Your task to perform on an android device: turn off location Image 0: 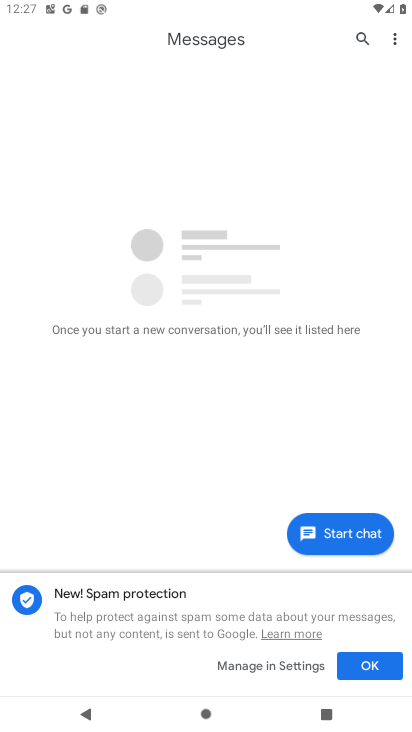
Step 0: press home button
Your task to perform on an android device: turn off location Image 1: 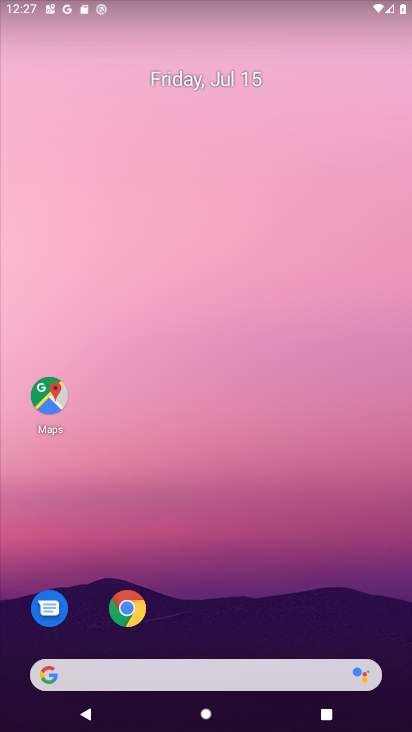
Step 1: drag from (265, 557) to (210, 101)
Your task to perform on an android device: turn off location Image 2: 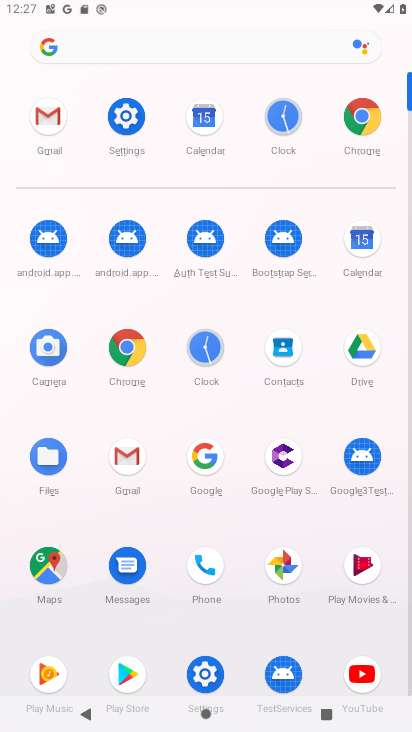
Step 2: click (123, 109)
Your task to perform on an android device: turn off location Image 3: 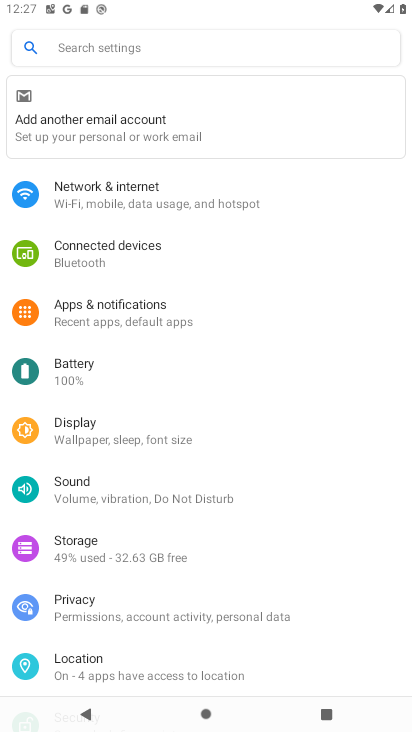
Step 3: click (76, 660)
Your task to perform on an android device: turn off location Image 4: 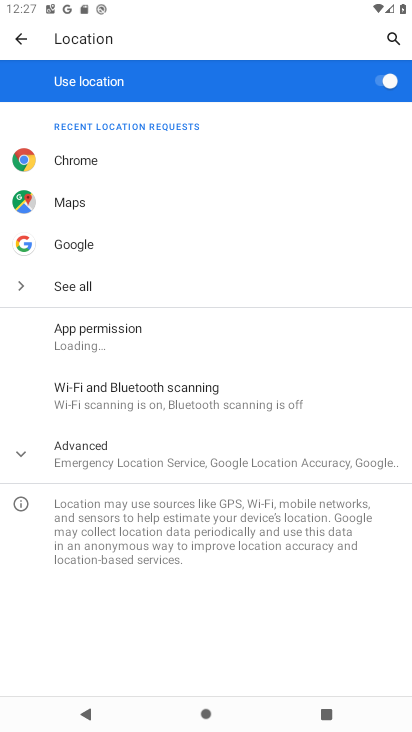
Step 4: click (374, 80)
Your task to perform on an android device: turn off location Image 5: 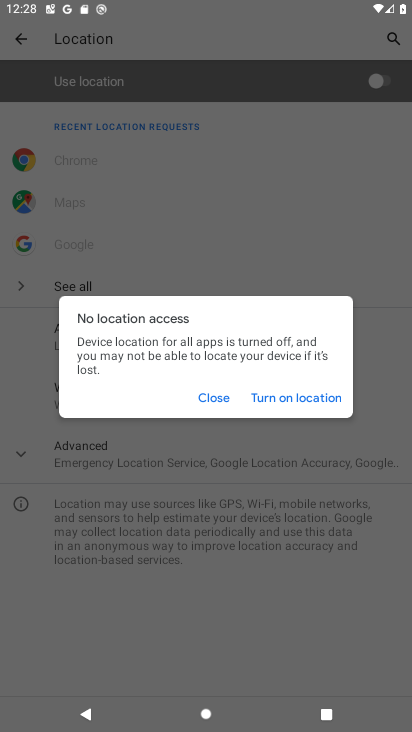
Step 5: click (212, 396)
Your task to perform on an android device: turn off location Image 6: 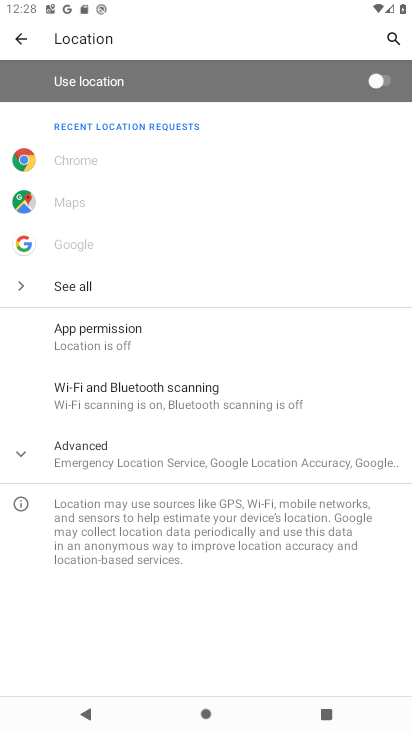
Step 6: task complete